Your task to perform on an android device: toggle wifi Image 0: 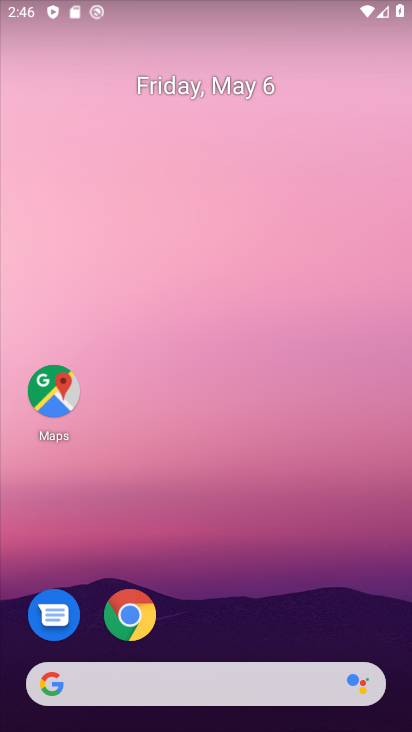
Step 0: drag from (189, 638) to (237, 19)
Your task to perform on an android device: toggle wifi Image 1: 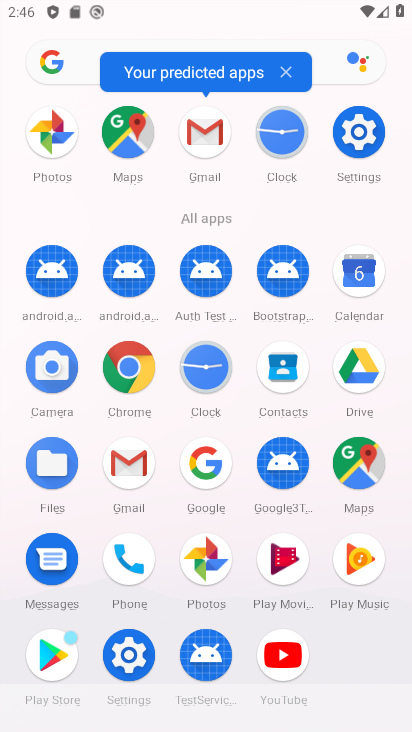
Step 1: click (367, 147)
Your task to perform on an android device: toggle wifi Image 2: 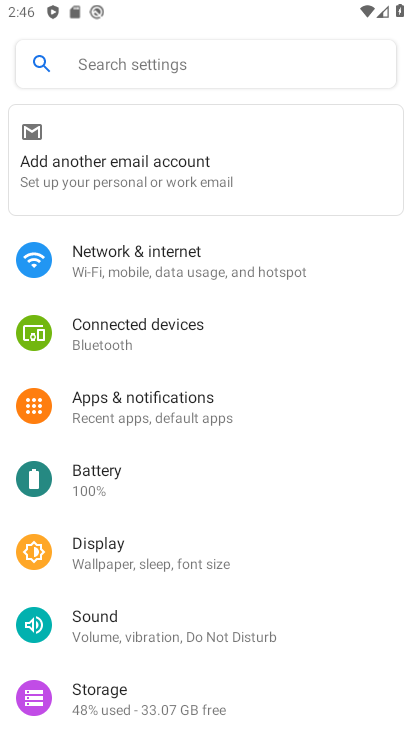
Step 2: click (160, 280)
Your task to perform on an android device: toggle wifi Image 3: 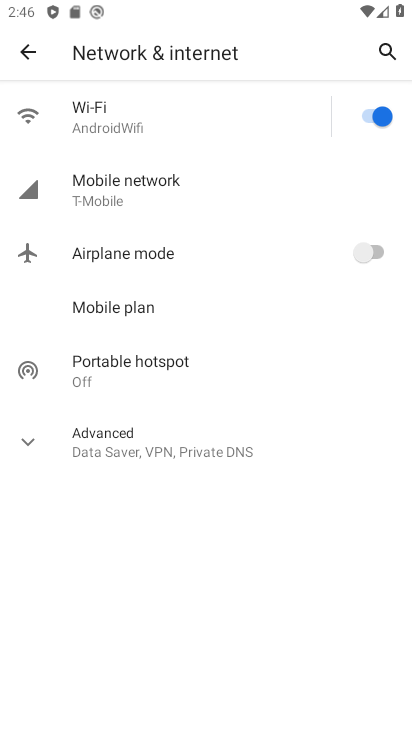
Step 3: click (107, 103)
Your task to perform on an android device: toggle wifi Image 4: 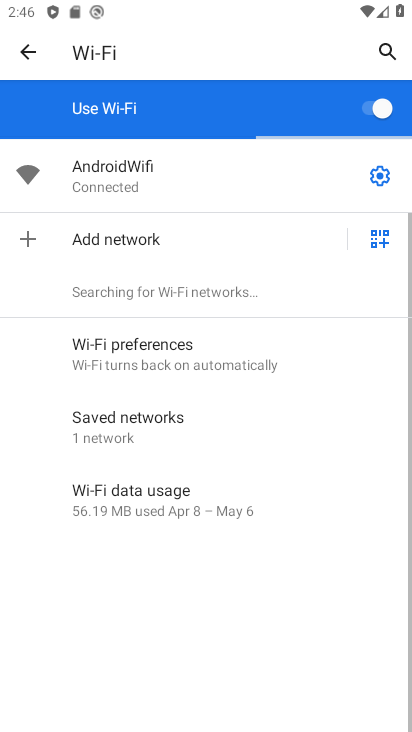
Step 4: click (370, 117)
Your task to perform on an android device: toggle wifi Image 5: 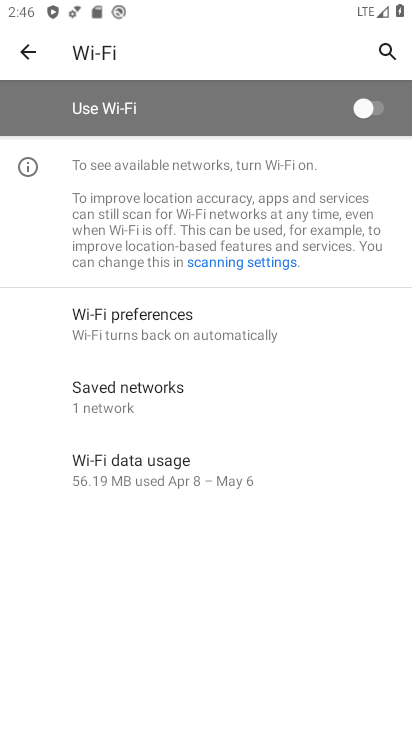
Step 5: task complete